Your task to perform on an android device: Open location settings Image 0: 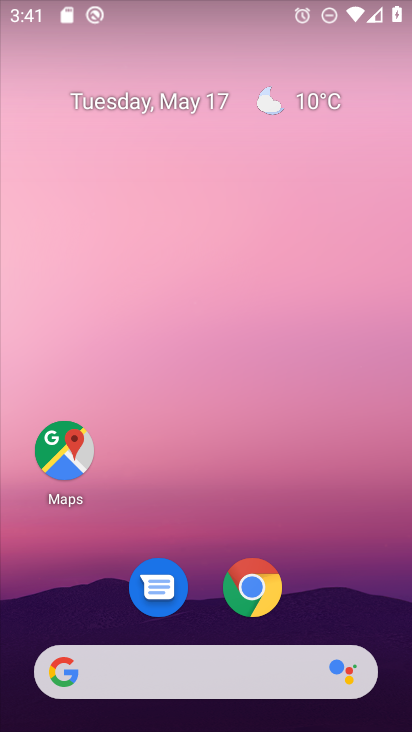
Step 0: drag from (321, 551) to (291, 30)
Your task to perform on an android device: Open location settings Image 1: 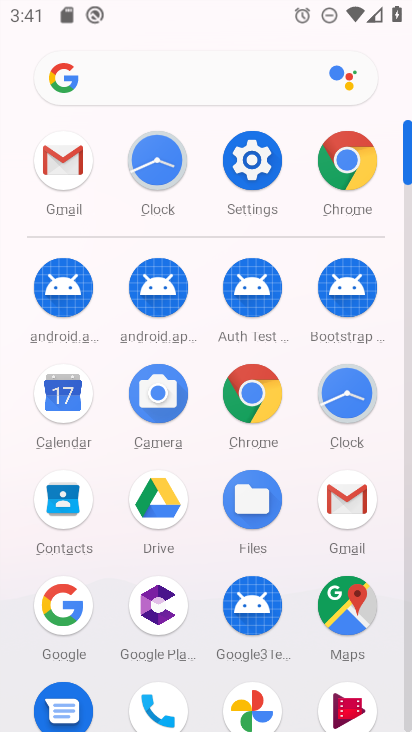
Step 1: click (258, 155)
Your task to perform on an android device: Open location settings Image 2: 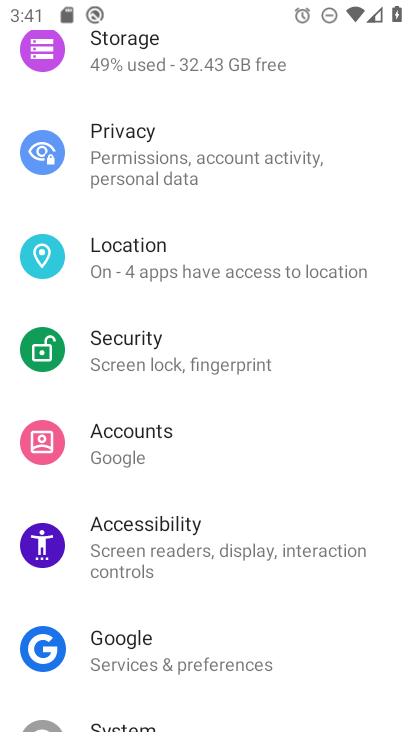
Step 2: click (184, 247)
Your task to perform on an android device: Open location settings Image 3: 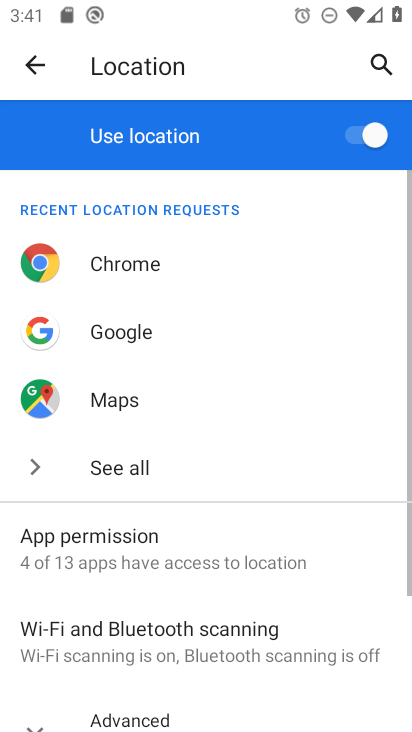
Step 3: drag from (202, 481) to (218, 182)
Your task to perform on an android device: Open location settings Image 4: 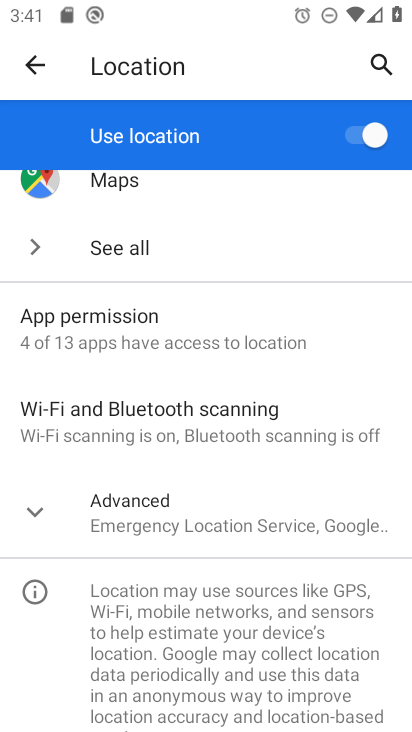
Step 4: click (47, 510)
Your task to perform on an android device: Open location settings Image 5: 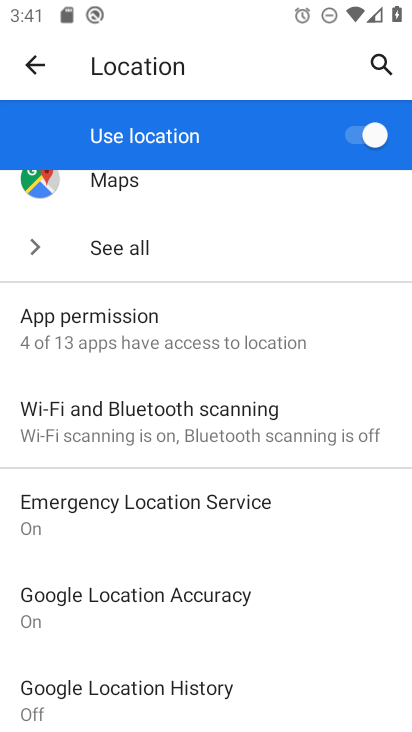
Step 5: task complete